Your task to perform on an android device: Open Maps and search for coffee Image 0: 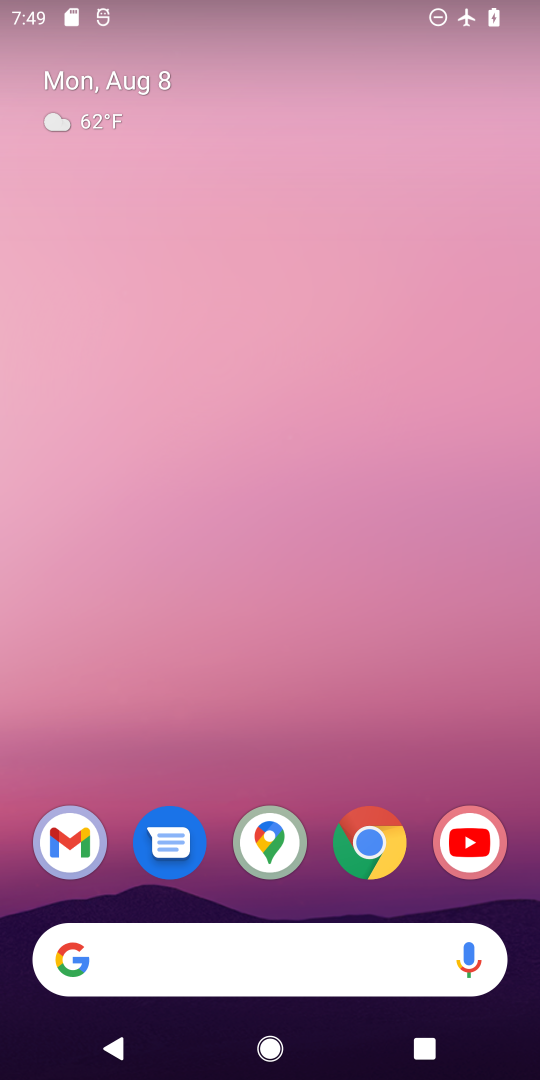
Step 0: click (222, 833)
Your task to perform on an android device: Open Maps and search for coffee Image 1: 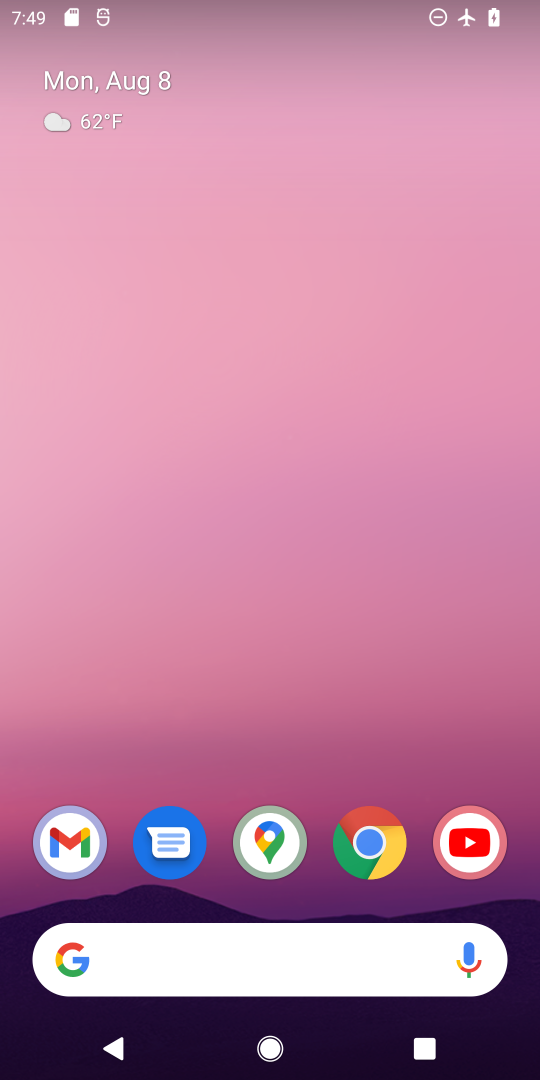
Step 1: click (283, 842)
Your task to perform on an android device: Open Maps and search for coffee Image 2: 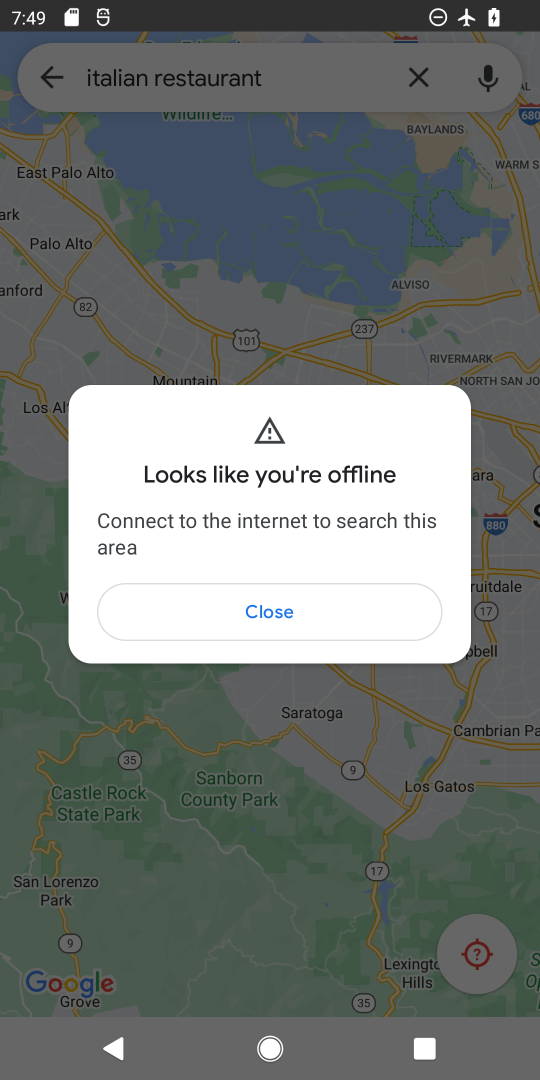
Step 2: click (300, 612)
Your task to perform on an android device: Open Maps and search for coffee Image 3: 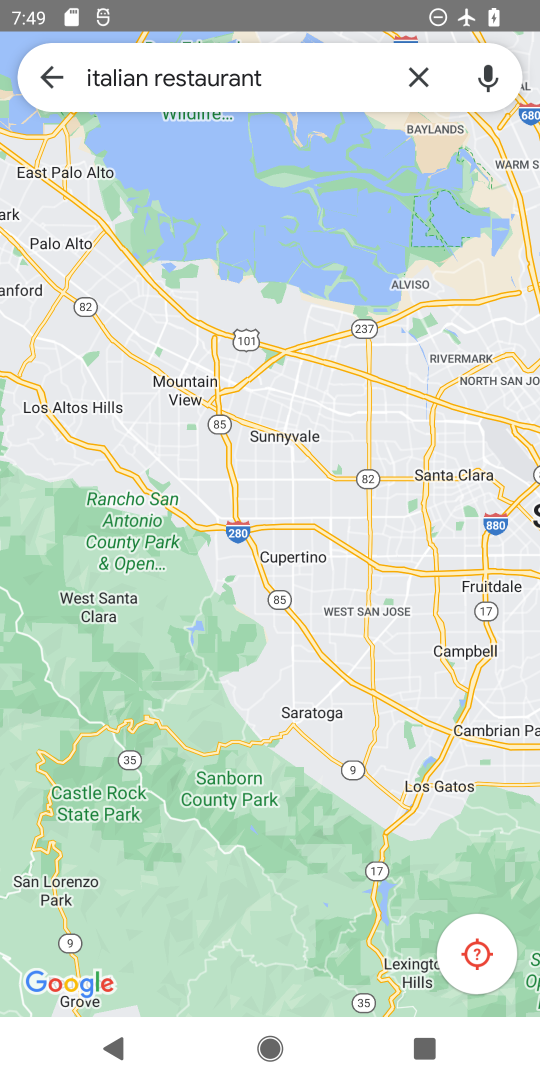
Step 3: click (412, 76)
Your task to perform on an android device: Open Maps and search for coffee Image 4: 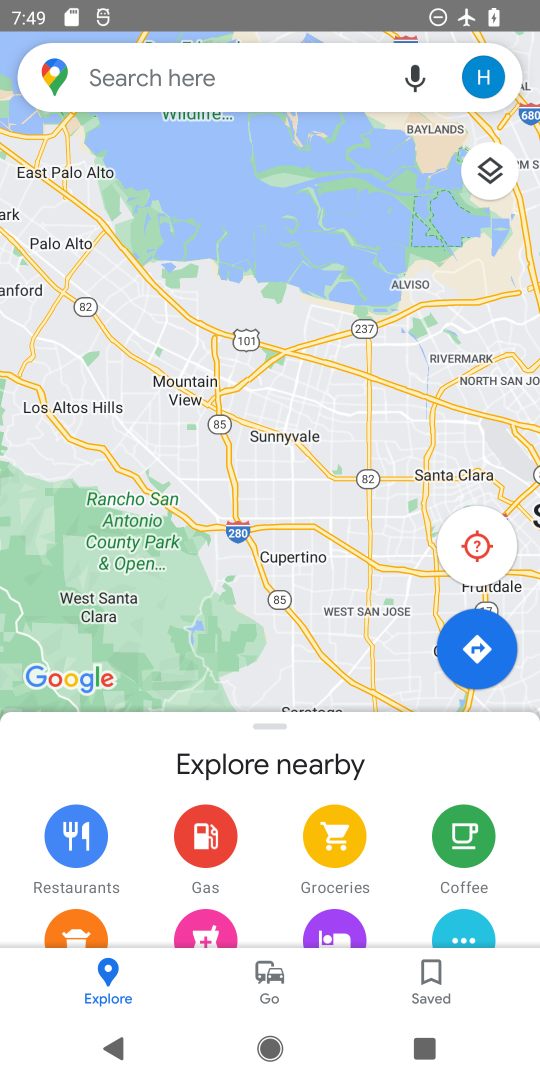
Step 4: click (177, 78)
Your task to perform on an android device: Open Maps and search for coffee Image 5: 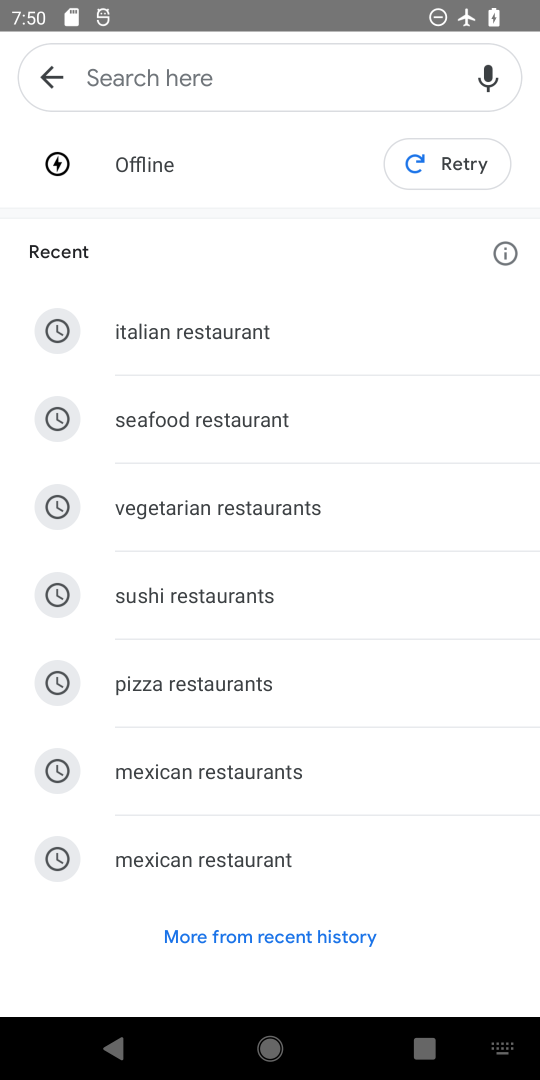
Step 5: task complete